Your task to perform on an android device: Clear all items from cart on newegg.com. Add jbl charge 4 to the cart on newegg.com, then select checkout. Image 0: 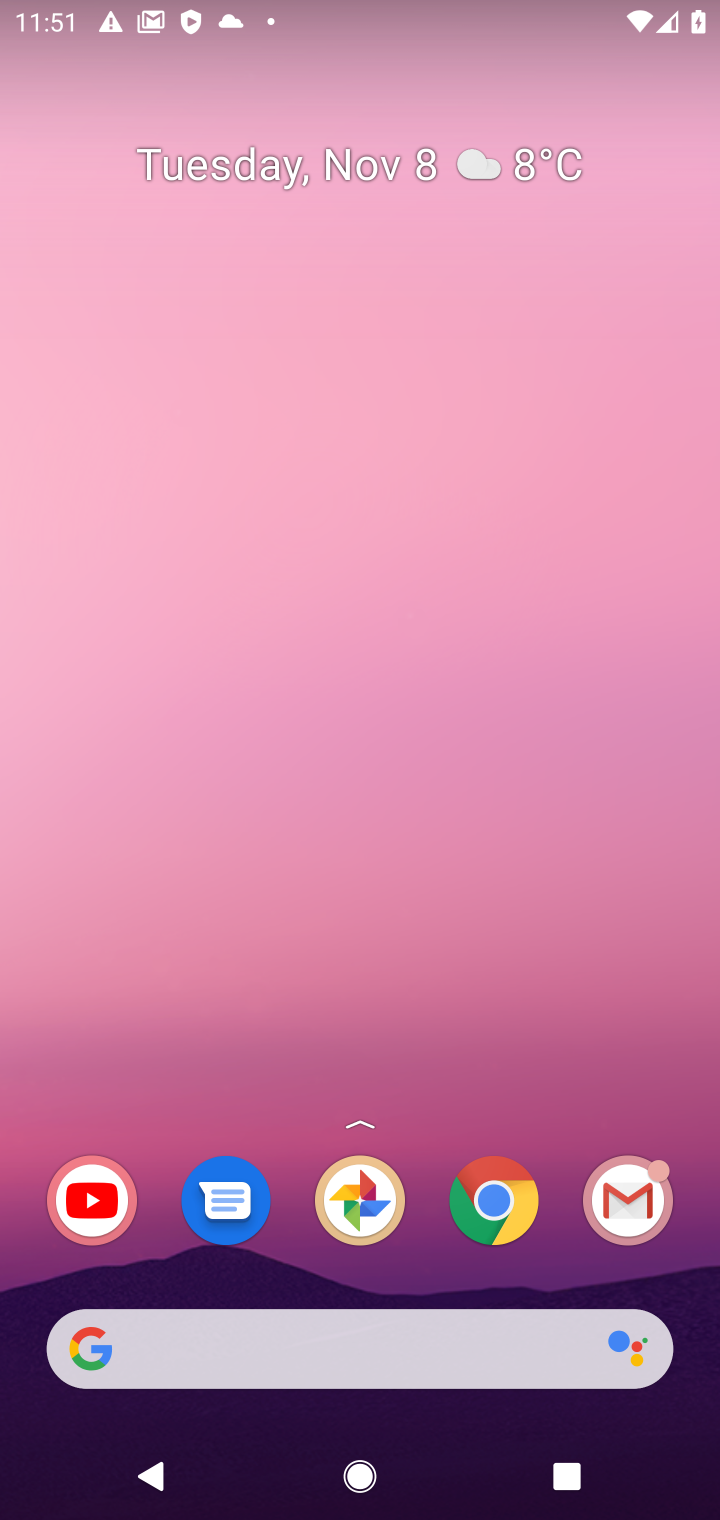
Step 0: click (288, 1341)
Your task to perform on an android device: Clear all items from cart on newegg.com. Add jbl charge 4 to the cart on newegg.com, then select checkout. Image 1: 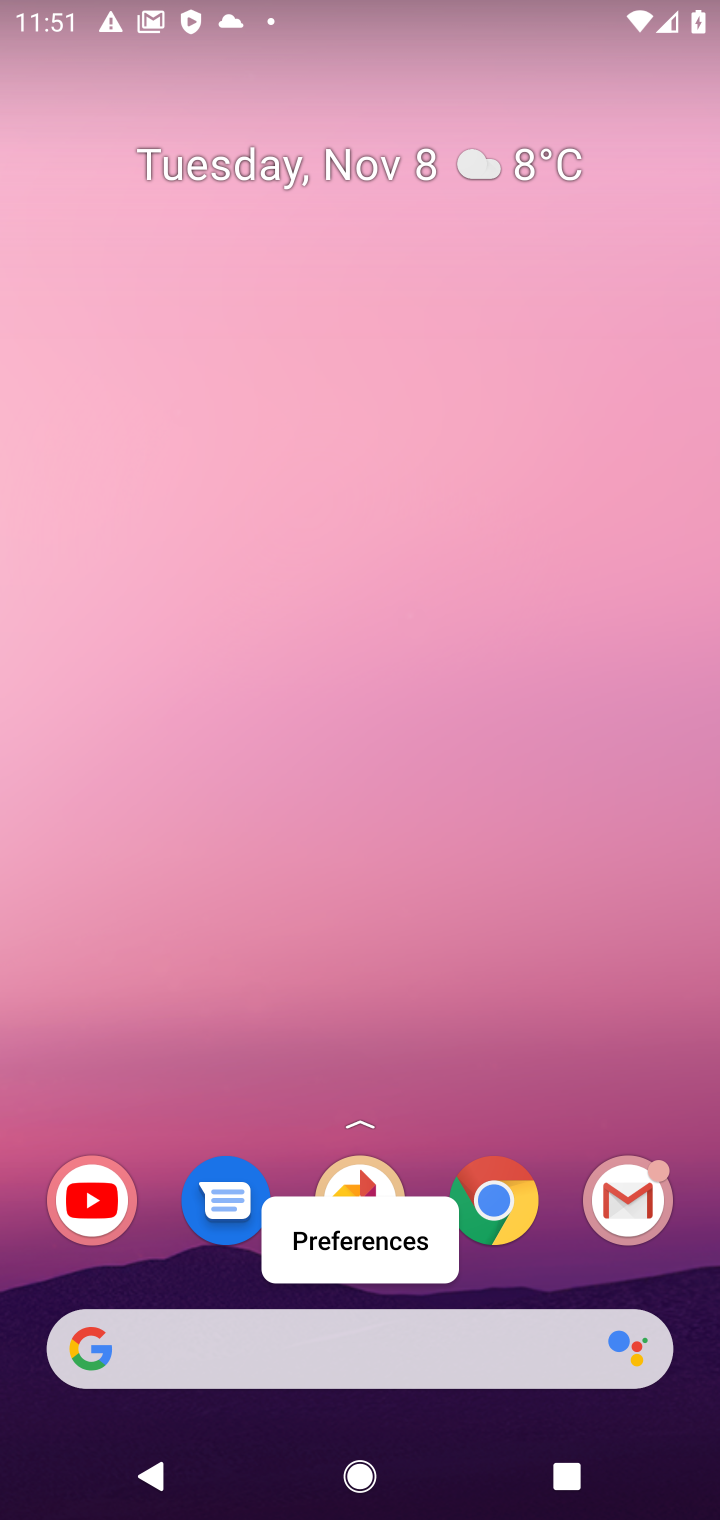
Step 1: task complete